Your task to perform on an android device: Open wifi settings Image 0: 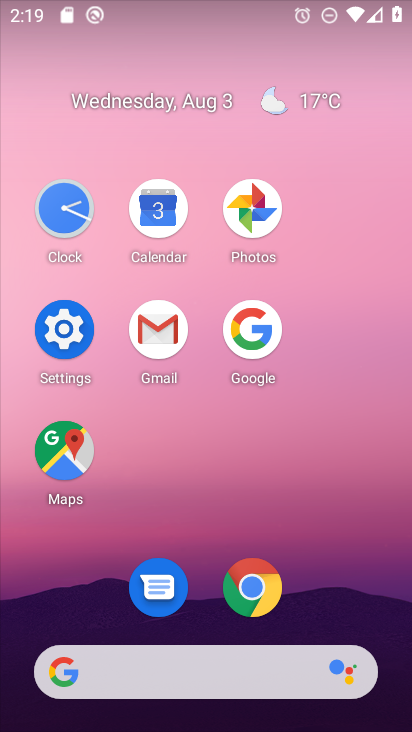
Step 0: click (82, 320)
Your task to perform on an android device: Open wifi settings Image 1: 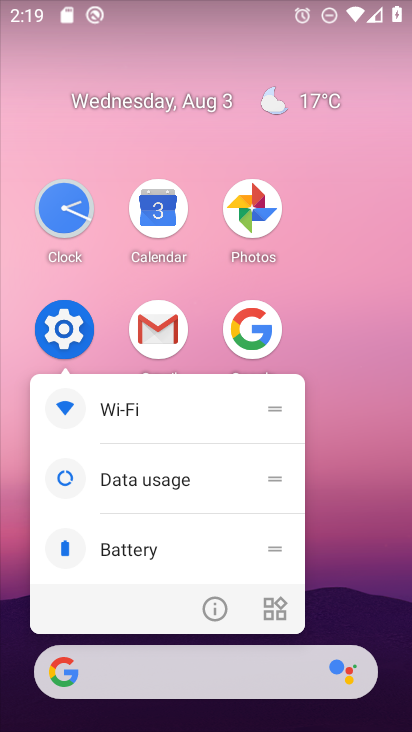
Step 1: click (45, 332)
Your task to perform on an android device: Open wifi settings Image 2: 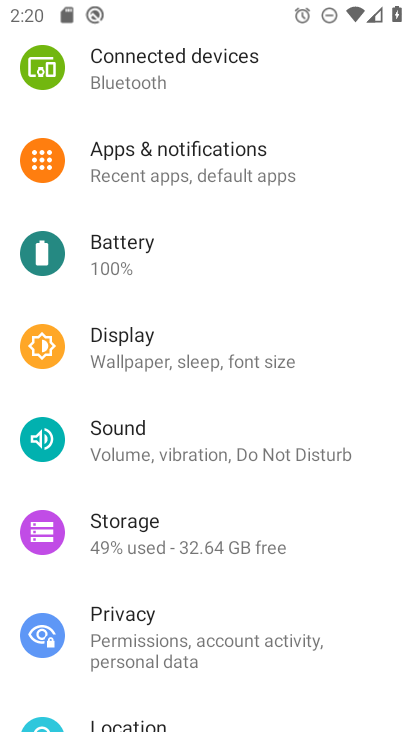
Step 2: drag from (305, 234) to (366, 445)
Your task to perform on an android device: Open wifi settings Image 3: 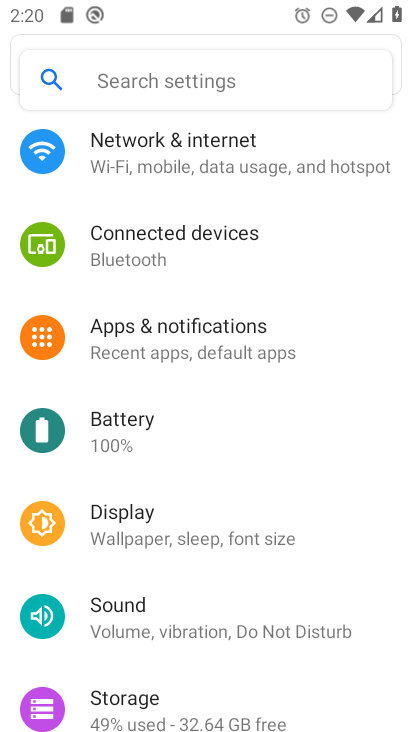
Step 3: click (231, 160)
Your task to perform on an android device: Open wifi settings Image 4: 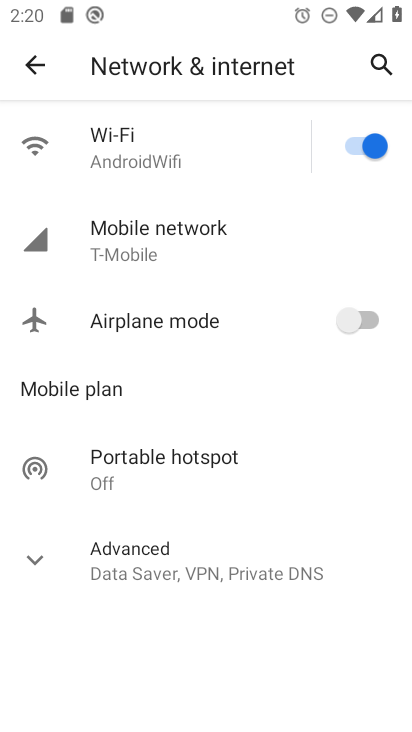
Step 4: click (234, 162)
Your task to perform on an android device: Open wifi settings Image 5: 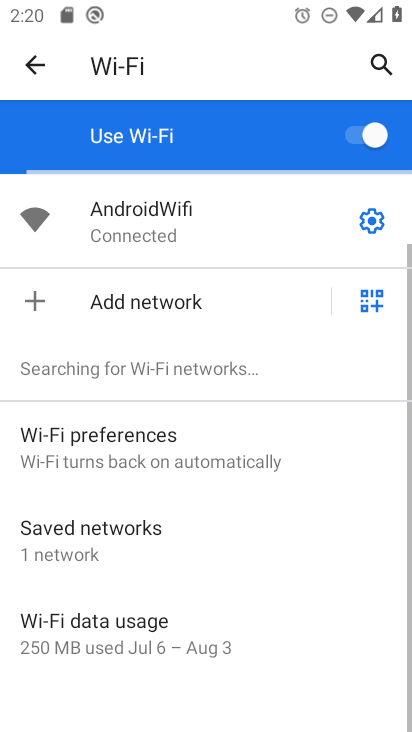
Step 5: click (376, 220)
Your task to perform on an android device: Open wifi settings Image 6: 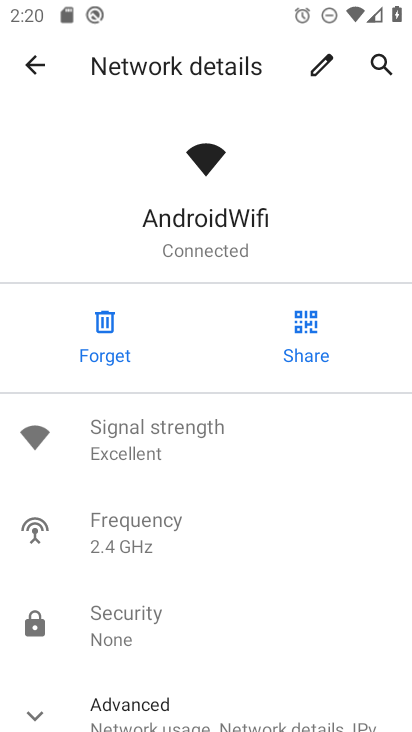
Step 6: task complete